Your task to perform on an android device: Open Google Maps and go to "Timeline" Image 0: 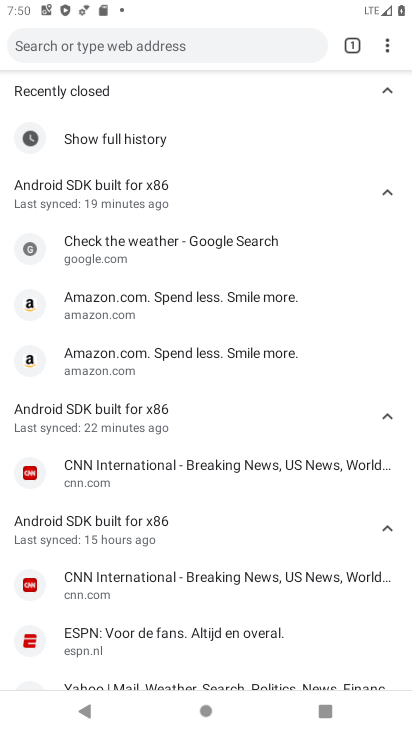
Step 0: press home button
Your task to perform on an android device: Open Google Maps and go to "Timeline" Image 1: 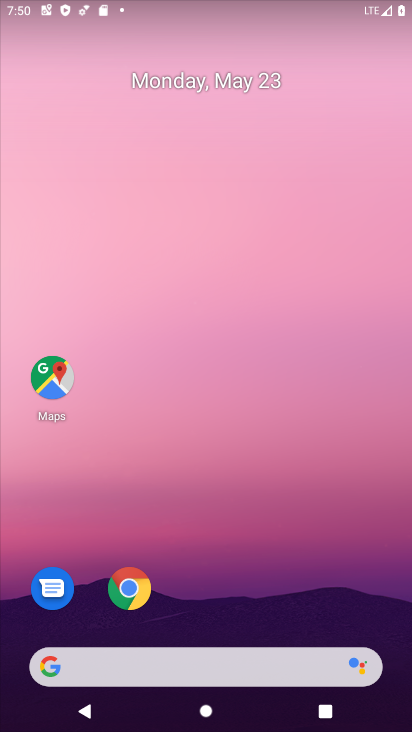
Step 1: click (43, 379)
Your task to perform on an android device: Open Google Maps and go to "Timeline" Image 2: 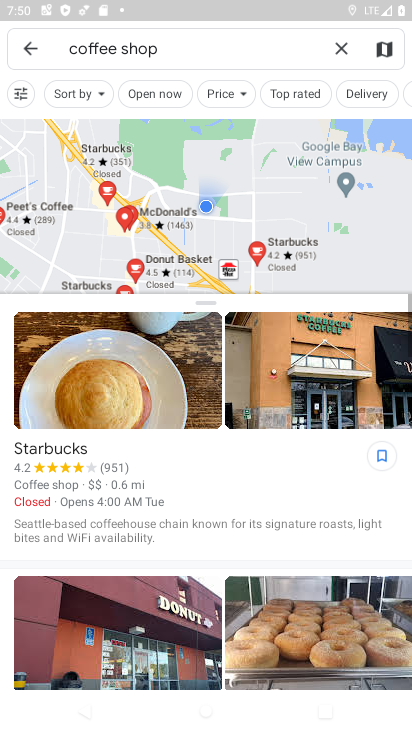
Step 2: click (29, 47)
Your task to perform on an android device: Open Google Maps and go to "Timeline" Image 3: 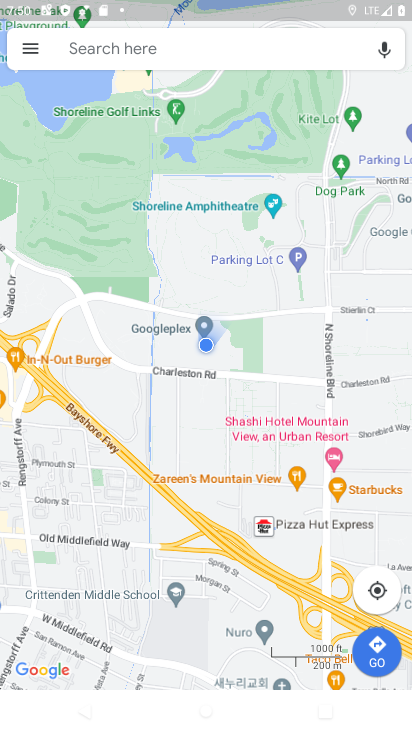
Step 3: click (33, 44)
Your task to perform on an android device: Open Google Maps and go to "Timeline" Image 4: 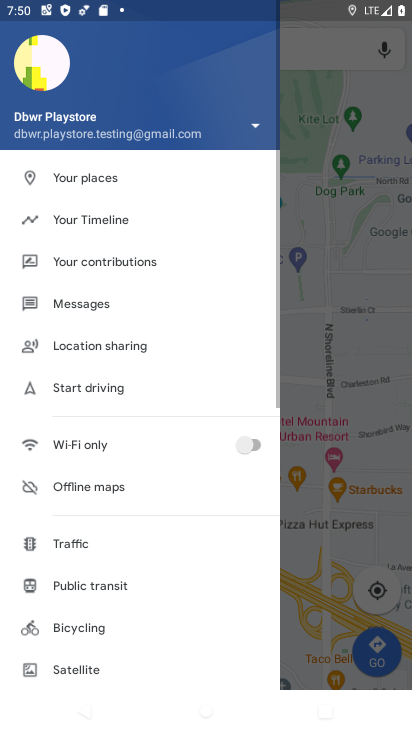
Step 4: click (94, 214)
Your task to perform on an android device: Open Google Maps and go to "Timeline" Image 5: 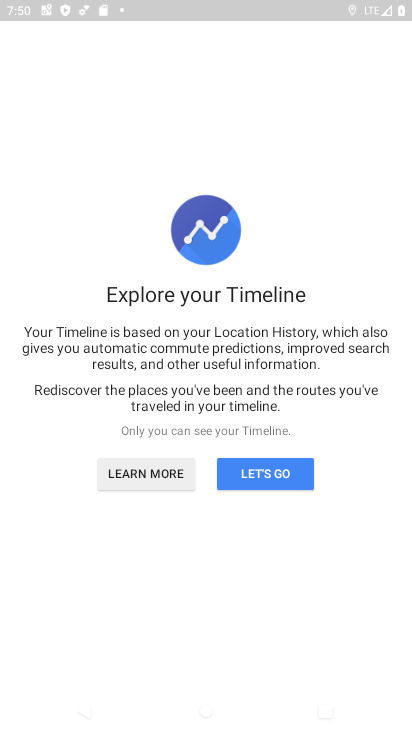
Step 5: click (277, 471)
Your task to perform on an android device: Open Google Maps and go to "Timeline" Image 6: 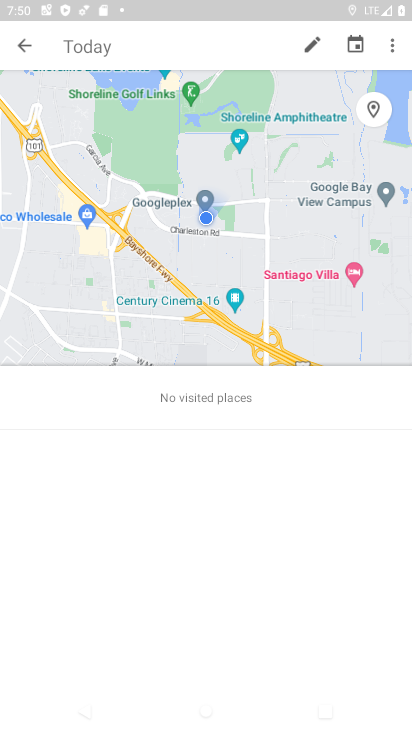
Step 6: task complete